Your task to perform on an android device: Open Wikipedia Image 0: 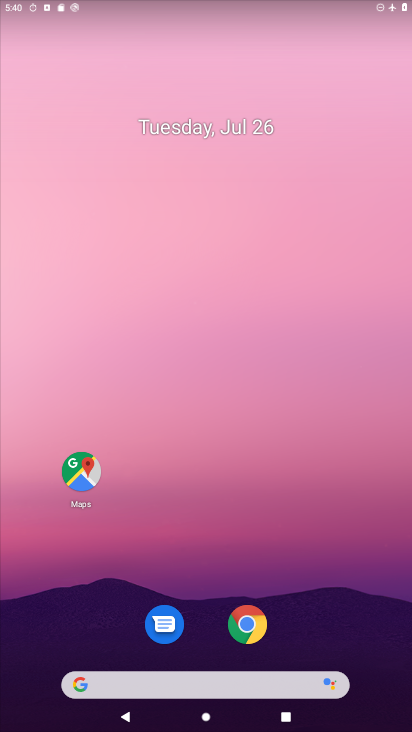
Step 0: drag from (287, 621) to (351, 6)
Your task to perform on an android device: Open Wikipedia Image 1: 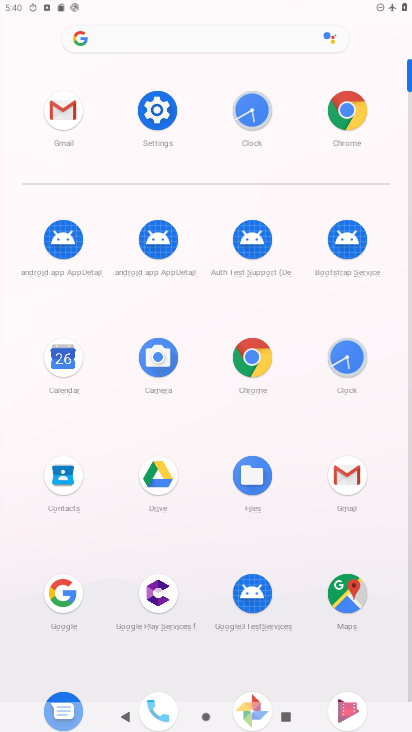
Step 1: click (254, 357)
Your task to perform on an android device: Open Wikipedia Image 2: 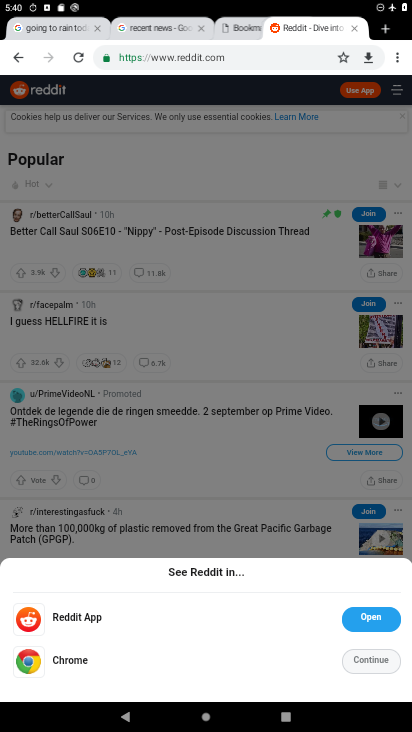
Step 2: click (395, 53)
Your task to perform on an android device: Open Wikipedia Image 3: 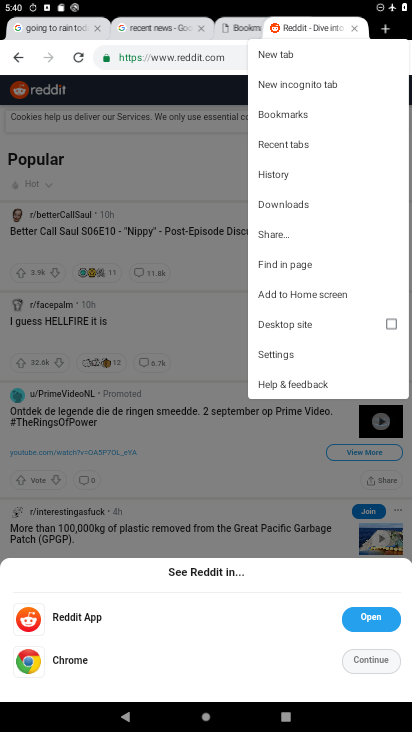
Step 3: click (293, 60)
Your task to perform on an android device: Open Wikipedia Image 4: 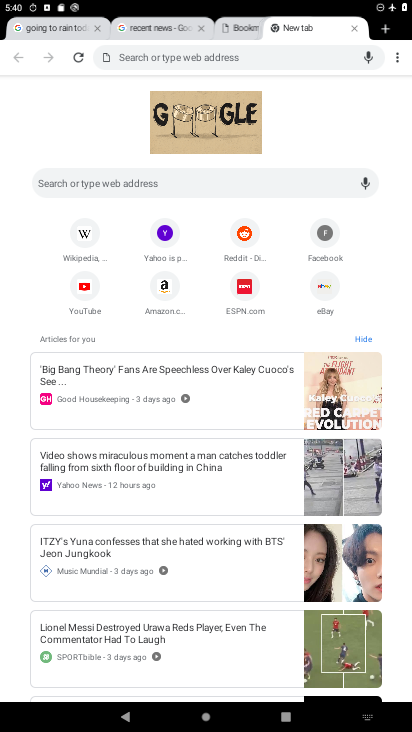
Step 4: task complete